Your task to perform on an android device: Go to accessibility settings Image 0: 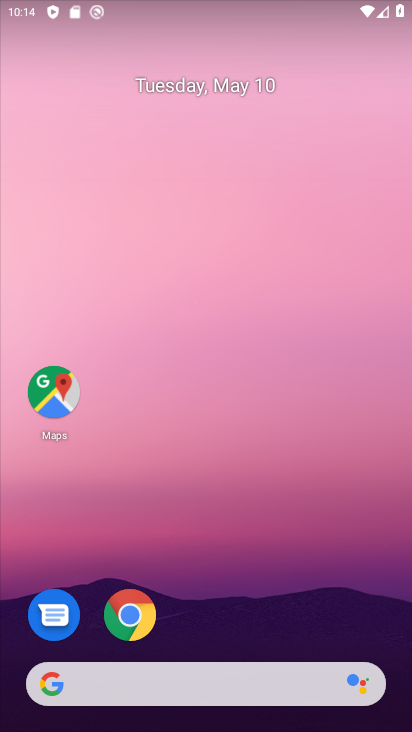
Step 0: drag from (266, 599) to (219, 204)
Your task to perform on an android device: Go to accessibility settings Image 1: 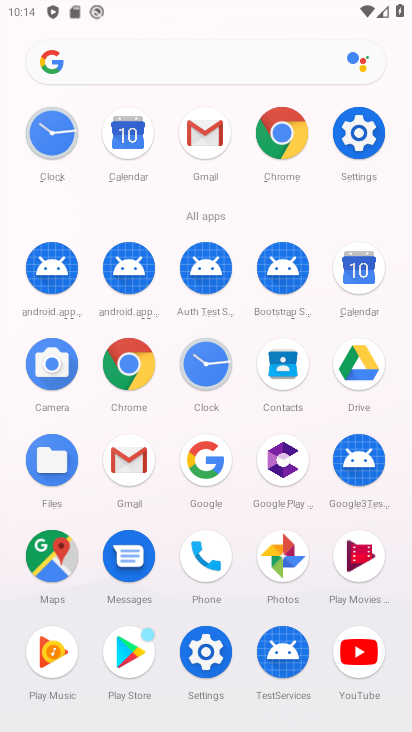
Step 1: click (358, 130)
Your task to perform on an android device: Go to accessibility settings Image 2: 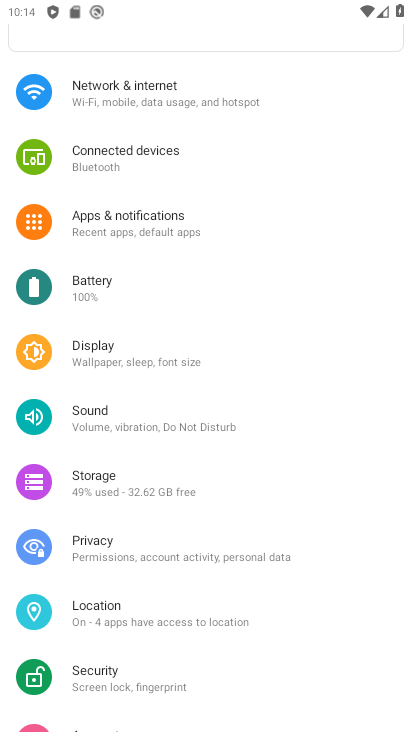
Step 2: drag from (149, 395) to (178, 318)
Your task to perform on an android device: Go to accessibility settings Image 3: 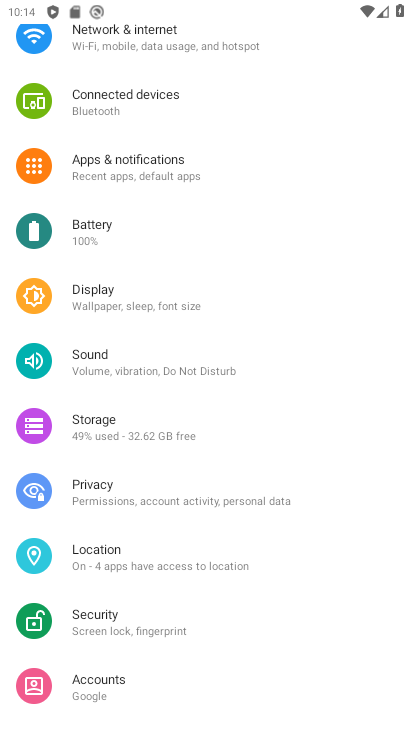
Step 3: drag from (152, 534) to (197, 428)
Your task to perform on an android device: Go to accessibility settings Image 4: 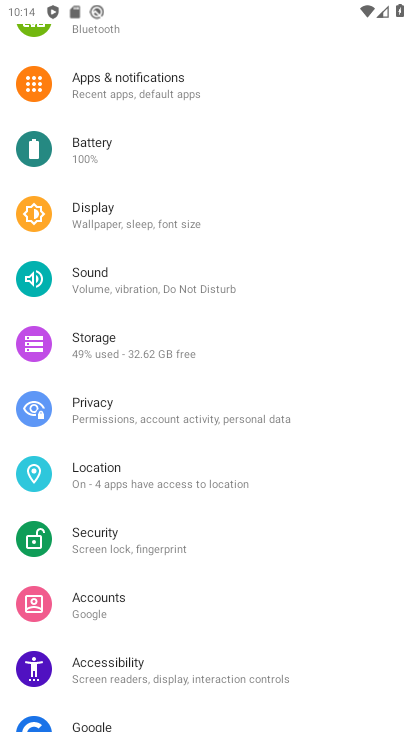
Step 4: drag from (160, 607) to (193, 513)
Your task to perform on an android device: Go to accessibility settings Image 5: 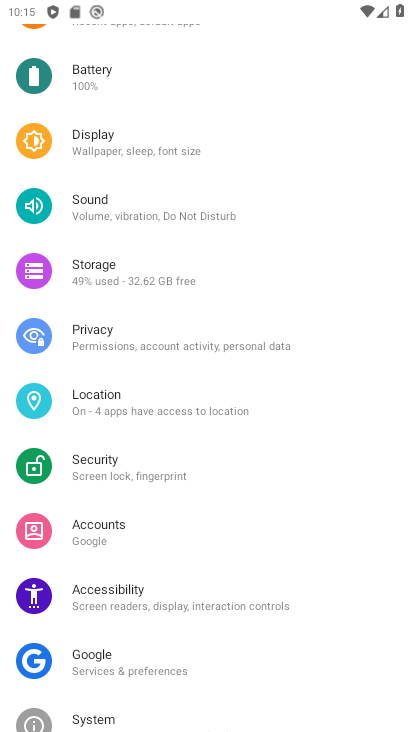
Step 5: click (121, 589)
Your task to perform on an android device: Go to accessibility settings Image 6: 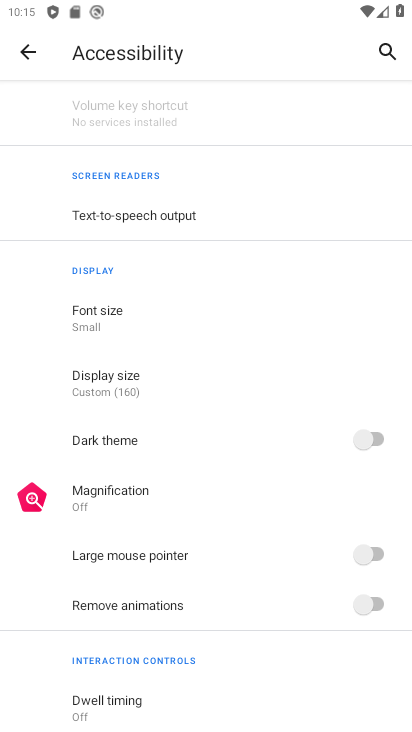
Step 6: task complete